Your task to perform on an android device: open device folders in google photos Image 0: 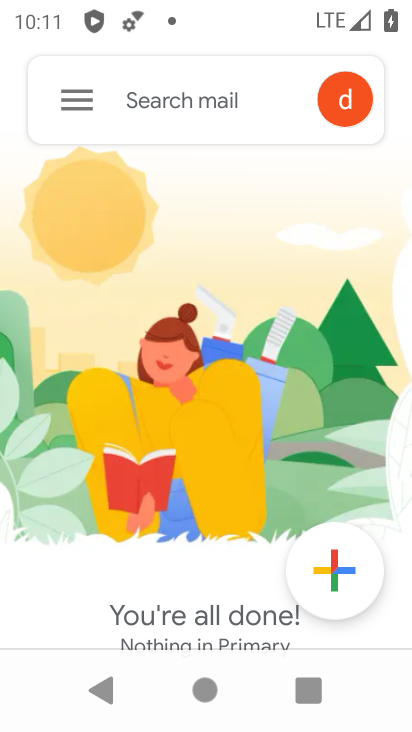
Step 0: press home button
Your task to perform on an android device: open device folders in google photos Image 1: 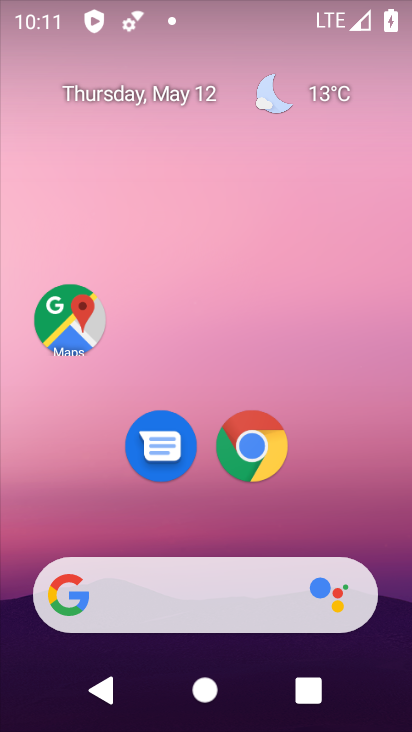
Step 1: drag from (274, 532) to (310, 5)
Your task to perform on an android device: open device folders in google photos Image 2: 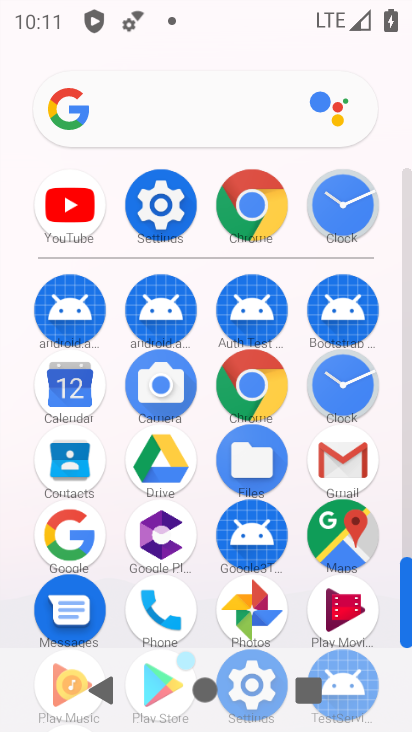
Step 2: click (248, 614)
Your task to perform on an android device: open device folders in google photos Image 3: 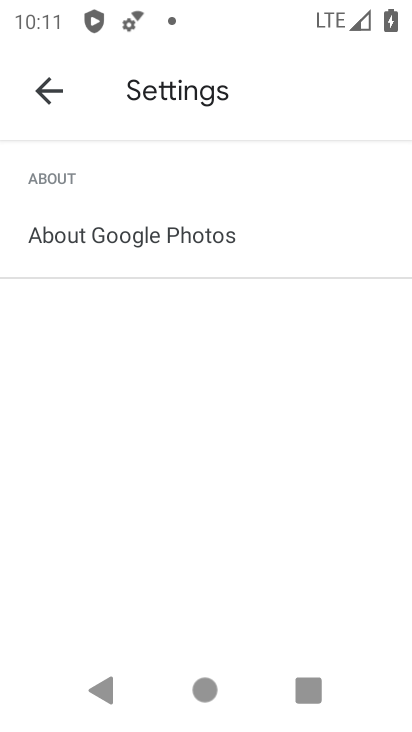
Step 3: press back button
Your task to perform on an android device: open device folders in google photos Image 4: 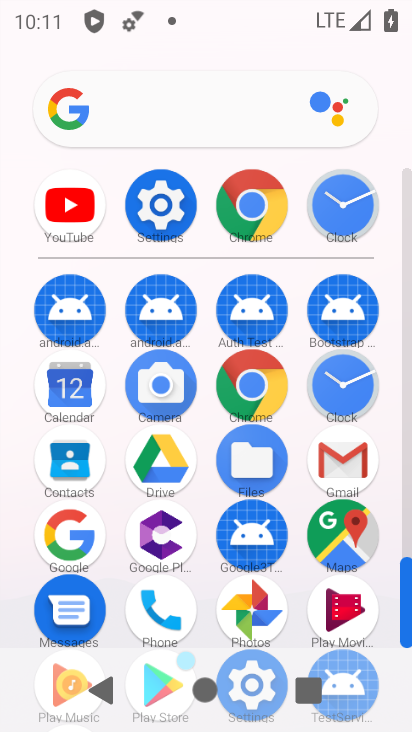
Step 4: click (250, 606)
Your task to perform on an android device: open device folders in google photos Image 5: 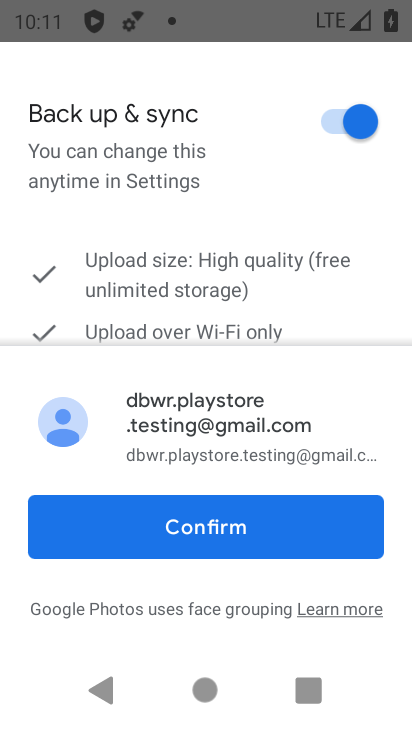
Step 5: click (202, 531)
Your task to perform on an android device: open device folders in google photos Image 6: 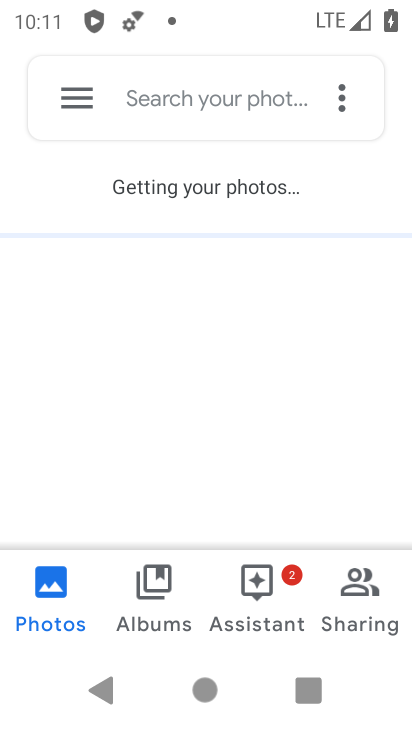
Step 6: click (78, 97)
Your task to perform on an android device: open device folders in google photos Image 7: 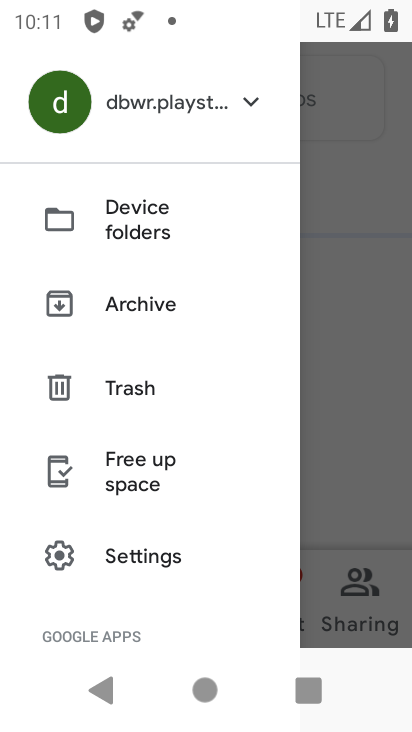
Step 7: click (145, 231)
Your task to perform on an android device: open device folders in google photos Image 8: 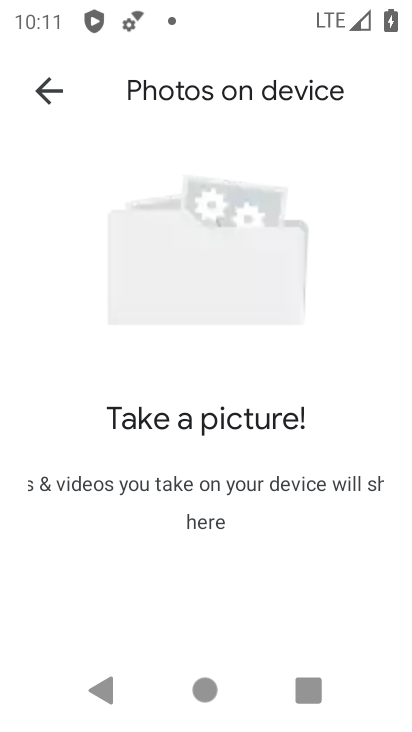
Step 8: task complete